Your task to perform on an android device: toggle notification dots Image 0: 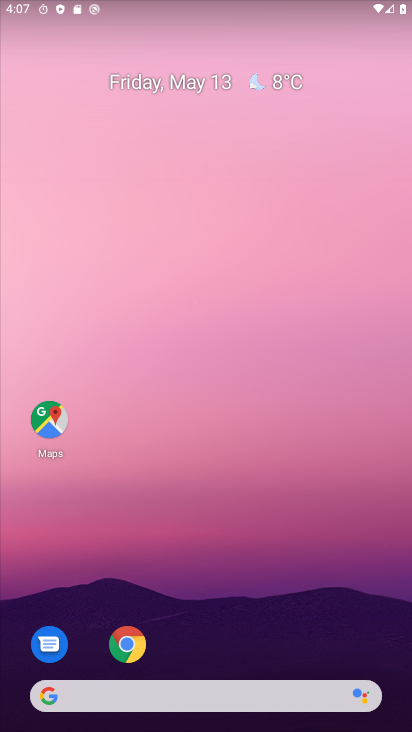
Step 0: drag from (207, 637) to (194, 124)
Your task to perform on an android device: toggle notification dots Image 1: 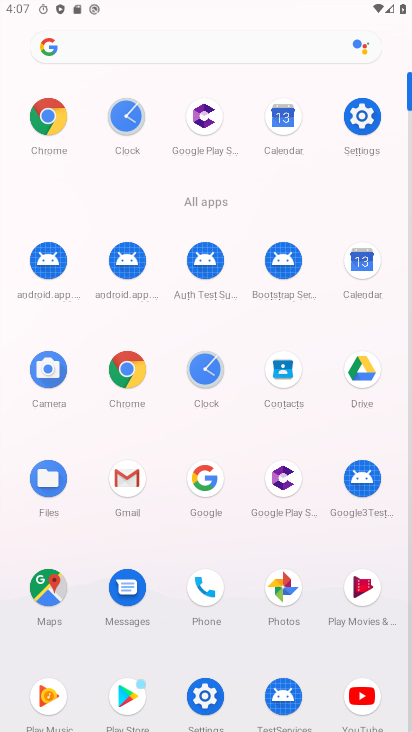
Step 1: click (364, 105)
Your task to perform on an android device: toggle notification dots Image 2: 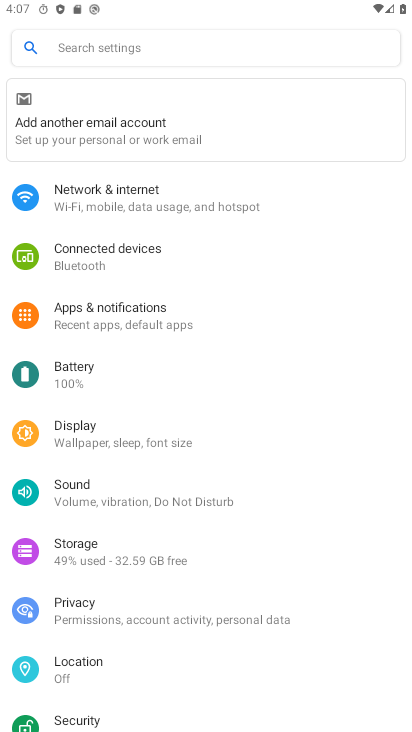
Step 2: click (190, 316)
Your task to perform on an android device: toggle notification dots Image 3: 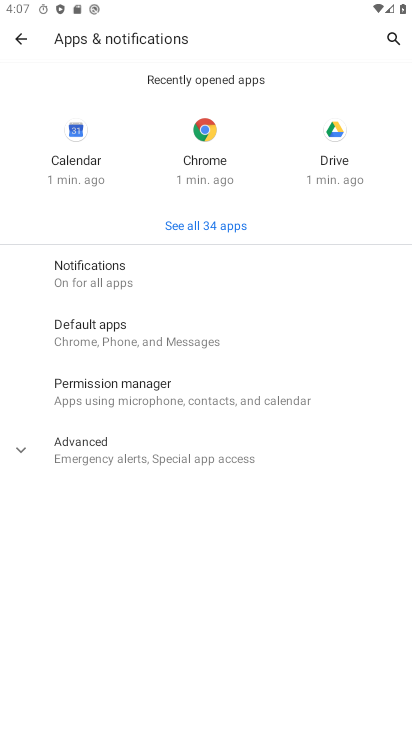
Step 3: click (149, 260)
Your task to perform on an android device: toggle notification dots Image 4: 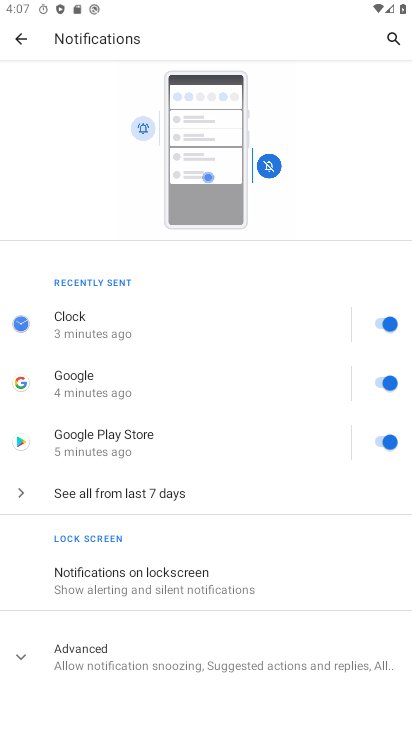
Step 4: drag from (203, 607) to (194, 273)
Your task to perform on an android device: toggle notification dots Image 5: 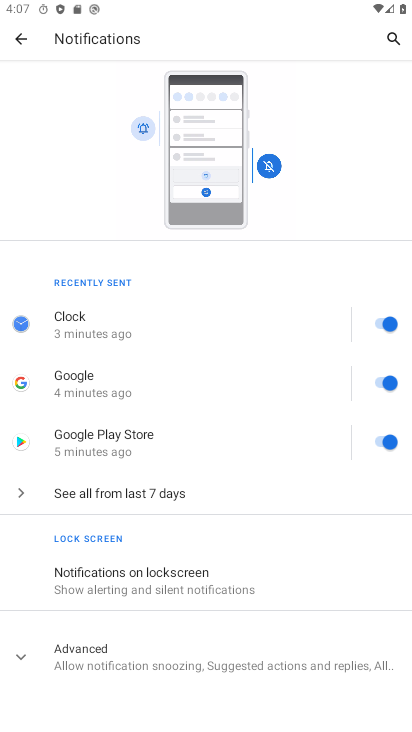
Step 5: click (157, 665)
Your task to perform on an android device: toggle notification dots Image 6: 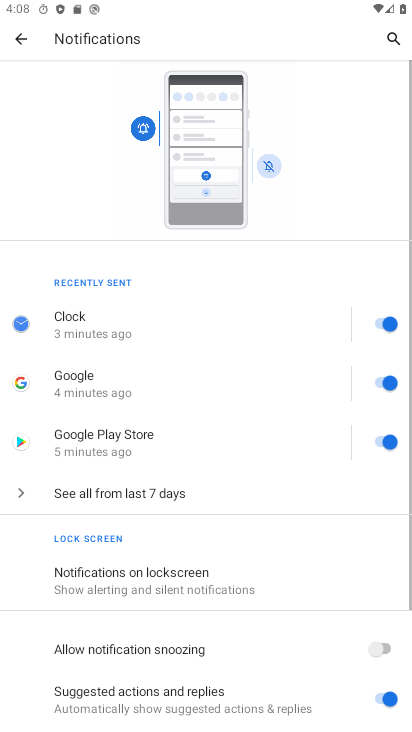
Step 6: drag from (157, 665) to (182, 250)
Your task to perform on an android device: toggle notification dots Image 7: 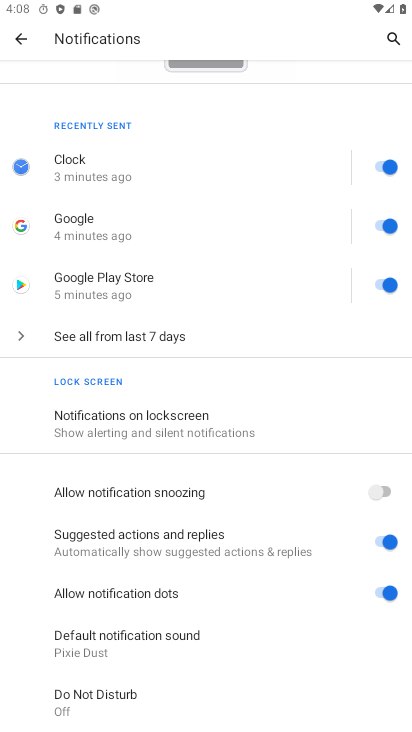
Step 7: click (381, 595)
Your task to perform on an android device: toggle notification dots Image 8: 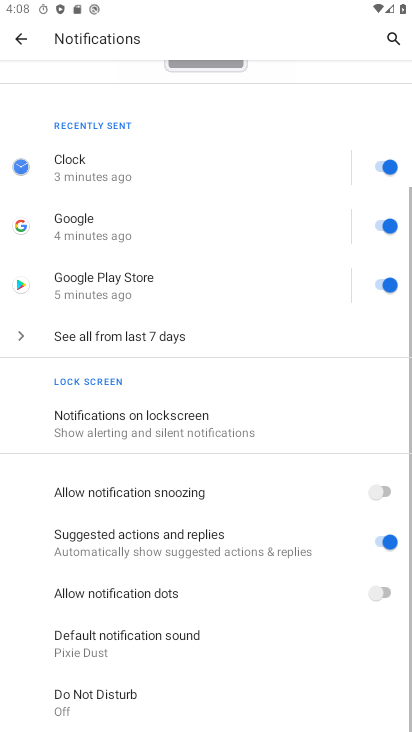
Step 8: task complete